Your task to perform on an android device: Set the phone to "Do not disturb". Image 0: 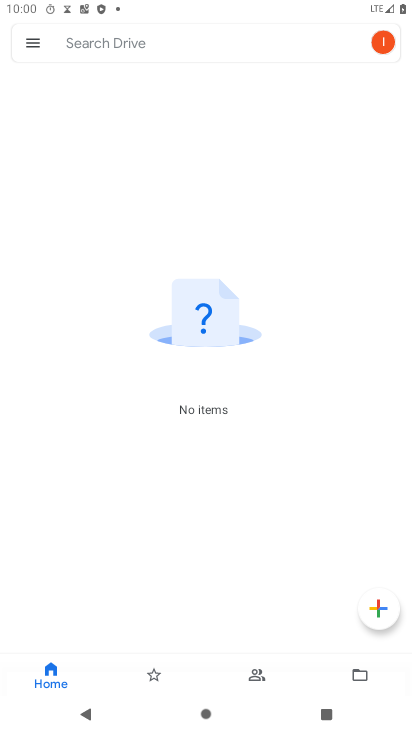
Step 0: press home button
Your task to perform on an android device: Set the phone to "Do not disturb". Image 1: 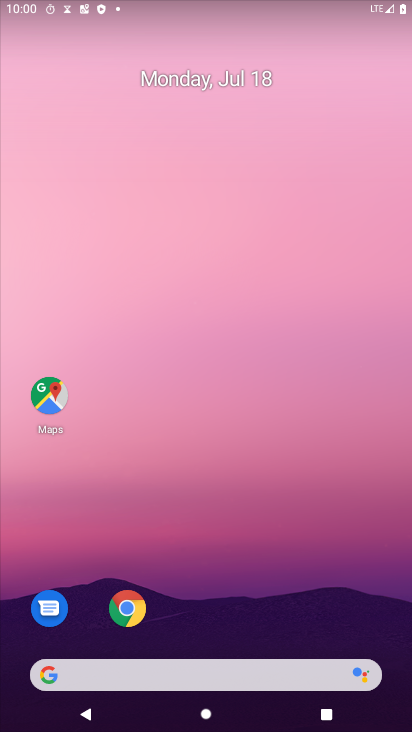
Step 1: drag from (209, 583) to (200, 211)
Your task to perform on an android device: Set the phone to "Do not disturb". Image 2: 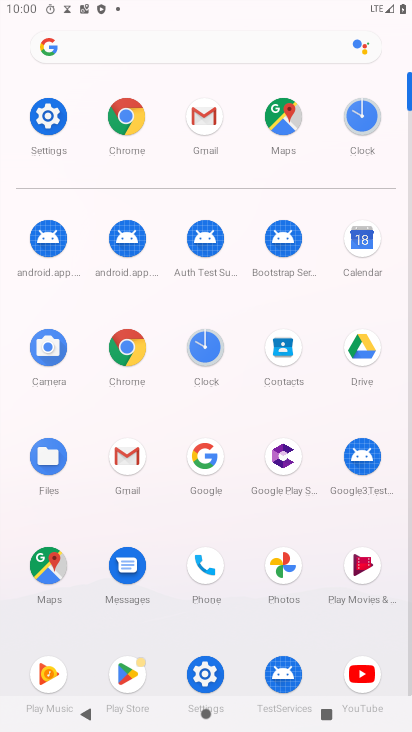
Step 2: click (39, 119)
Your task to perform on an android device: Set the phone to "Do not disturb". Image 3: 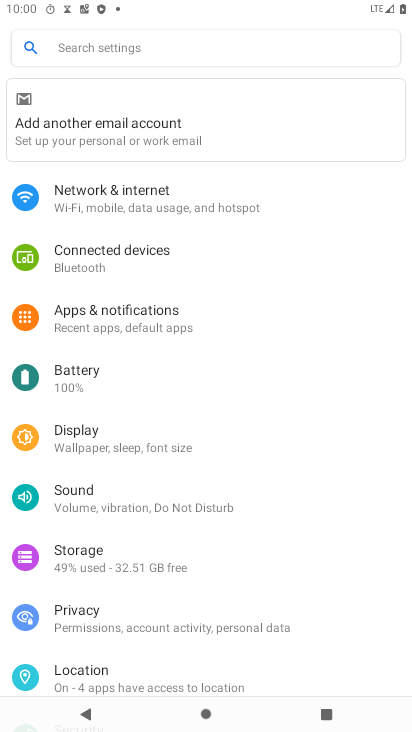
Step 3: click (39, 119)
Your task to perform on an android device: Set the phone to "Do not disturb". Image 4: 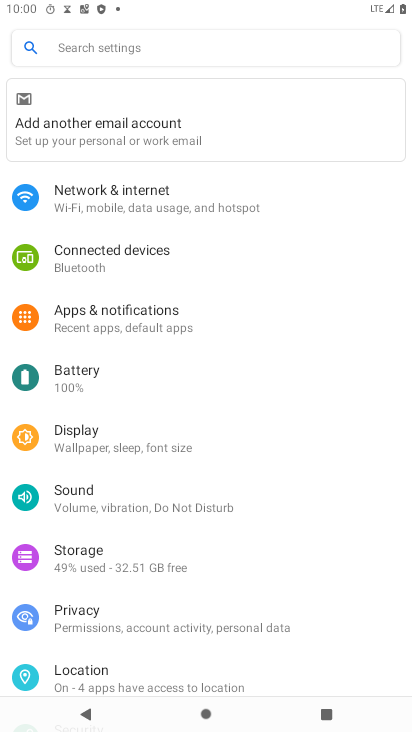
Step 4: click (39, 119)
Your task to perform on an android device: Set the phone to "Do not disturb". Image 5: 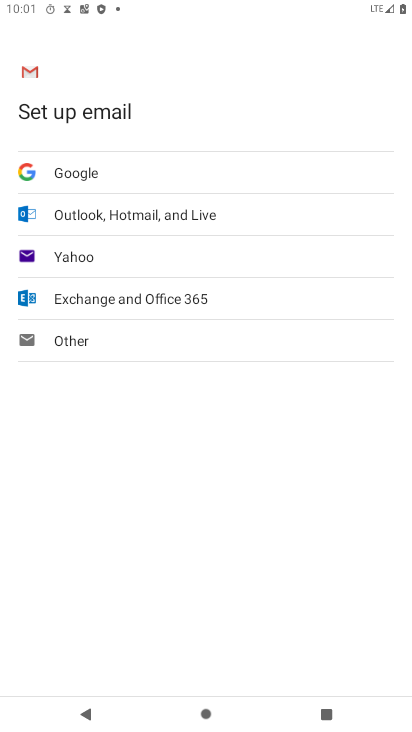
Step 5: press back button
Your task to perform on an android device: Set the phone to "Do not disturb". Image 6: 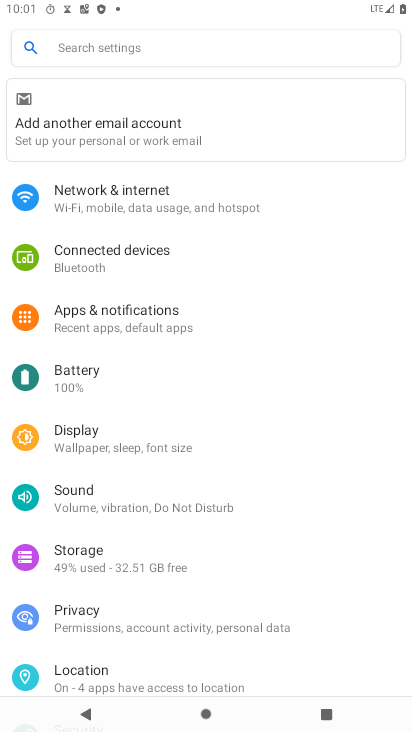
Step 6: click (128, 508)
Your task to perform on an android device: Set the phone to "Do not disturb". Image 7: 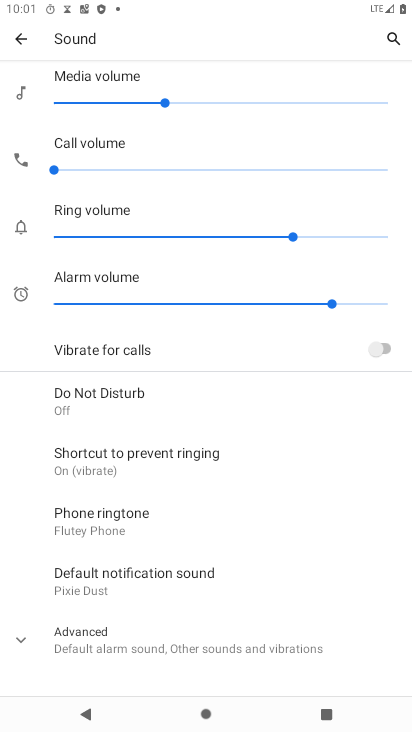
Step 7: click (114, 413)
Your task to perform on an android device: Set the phone to "Do not disturb". Image 8: 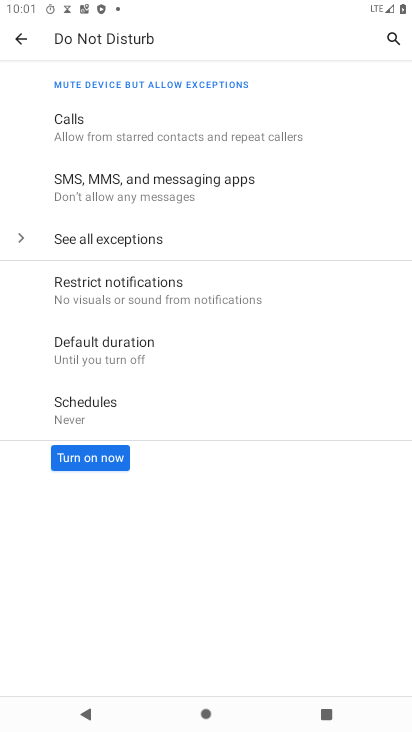
Step 8: click (108, 458)
Your task to perform on an android device: Set the phone to "Do not disturb". Image 9: 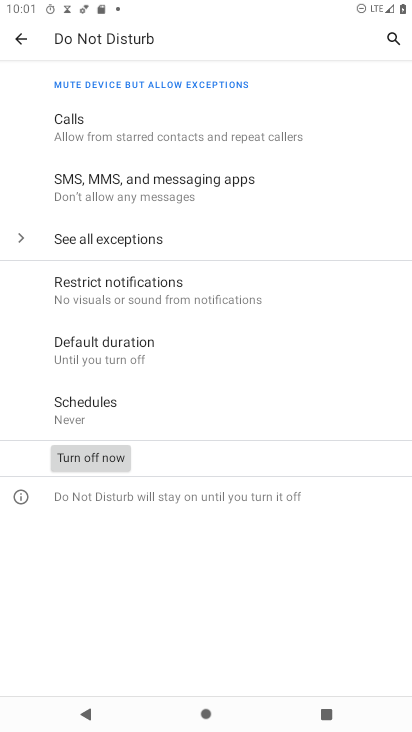
Step 9: task complete